Your task to perform on an android device: Open the stopwatch Image 0: 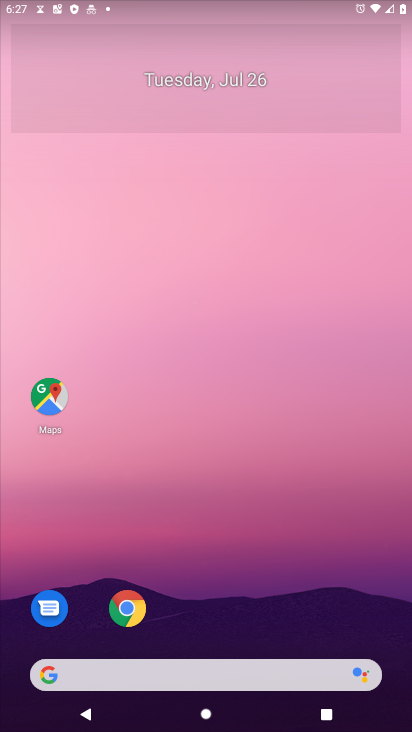
Step 0: press home button
Your task to perform on an android device: Open the stopwatch Image 1: 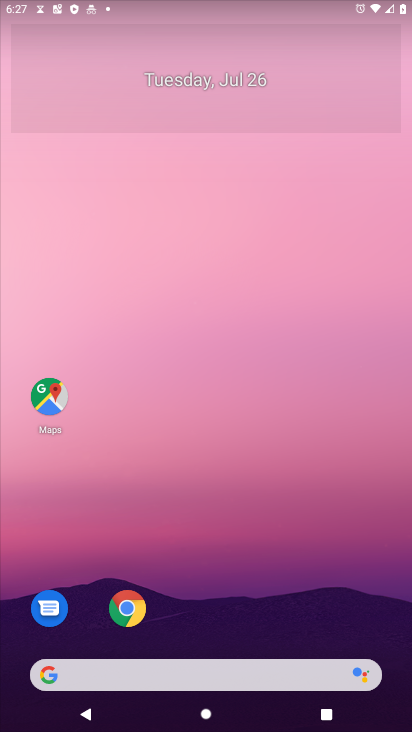
Step 1: drag from (211, 639) to (216, 48)
Your task to perform on an android device: Open the stopwatch Image 2: 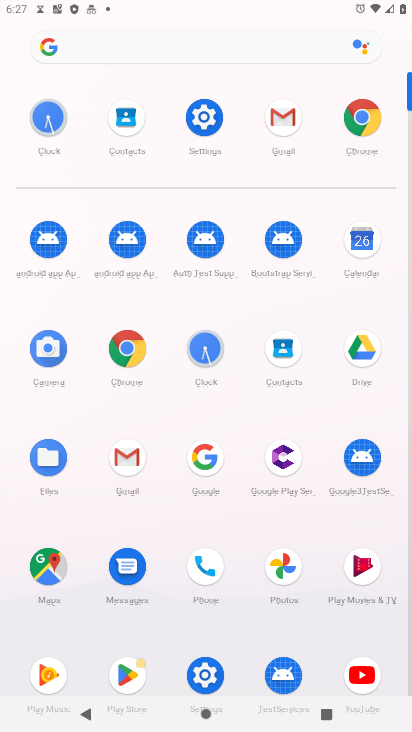
Step 2: click (204, 351)
Your task to perform on an android device: Open the stopwatch Image 3: 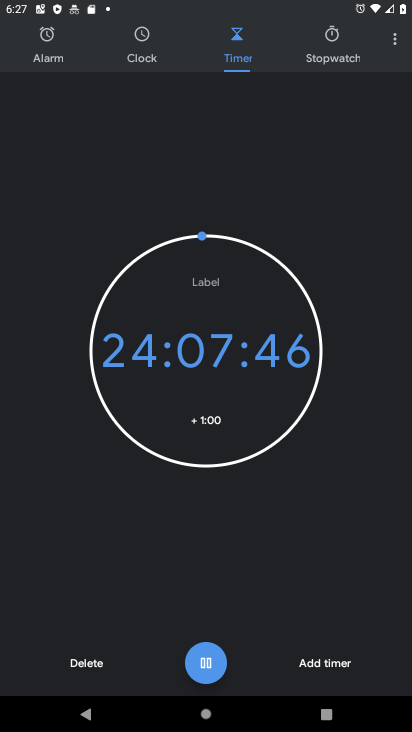
Step 3: click (330, 37)
Your task to perform on an android device: Open the stopwatch Image 4: 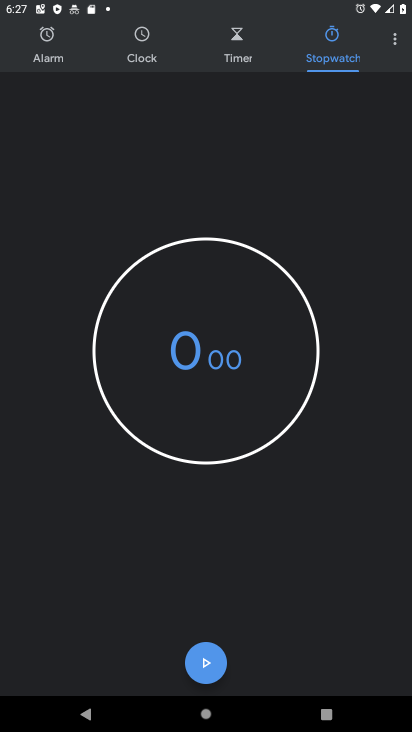
Step 4: task complete